Your task to perform on an android device: Search for razer huntsman on costco.com, select the first entry, add it to the cart, then select checkout. Image 0: 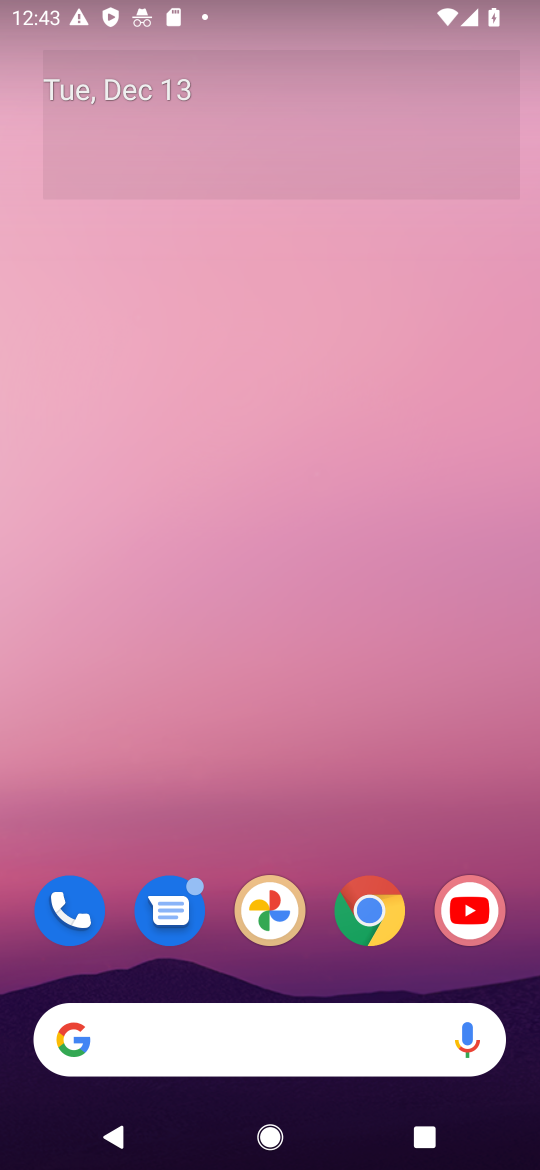
Step 0: task complete